Your task to perform on an android device: turn off javascript in the chrome app Image 0: 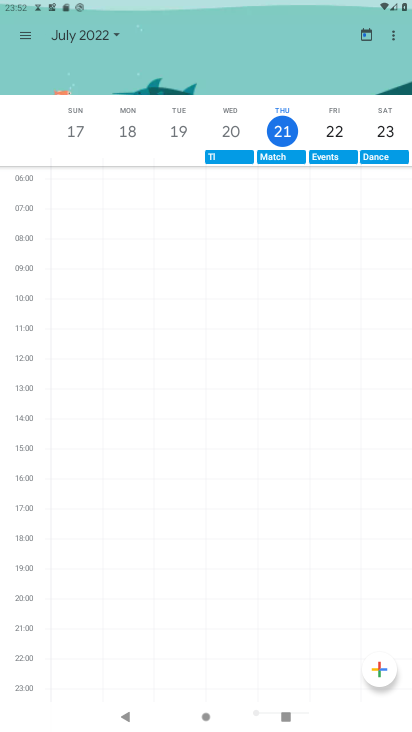
Step 0: press home button
Your task to perform on an android device: turn off javascript in the chrome app Image 1: 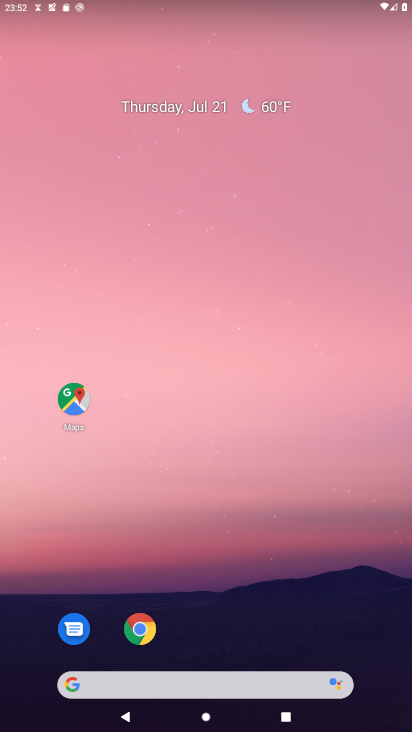
Step 1: drag from (172, 642) to (186, 182)
Your task to perform on an android device: turn off javascript in the chrome app Image 2: 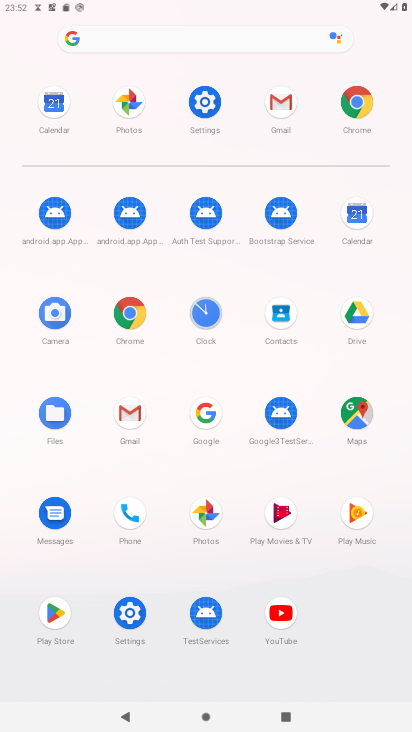
Step 2: click (131, 316)
Your task to perform on an android device: turn off javascript in the chrome app Image 3: 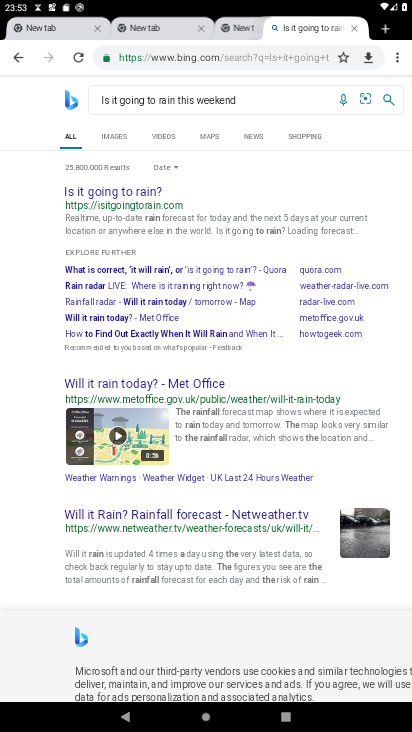
Step 3: click (394, 56)
Your task to perform on an android device: turn off javascript in the chrome app Image 4: 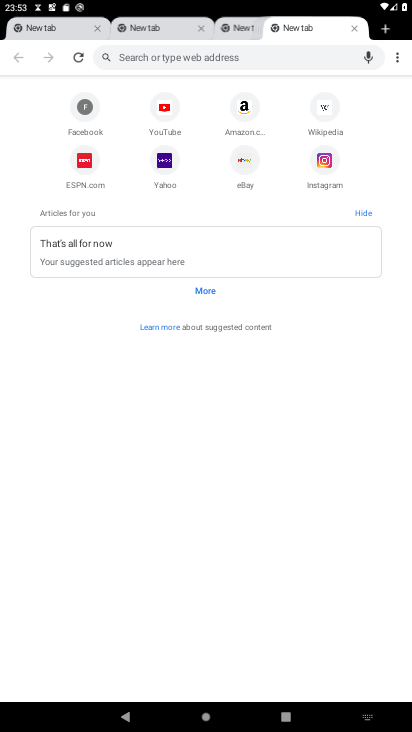
Step 4: click (405, 49)
Your task to perform on an android device: turn off javascript in the chrome app Image 5: 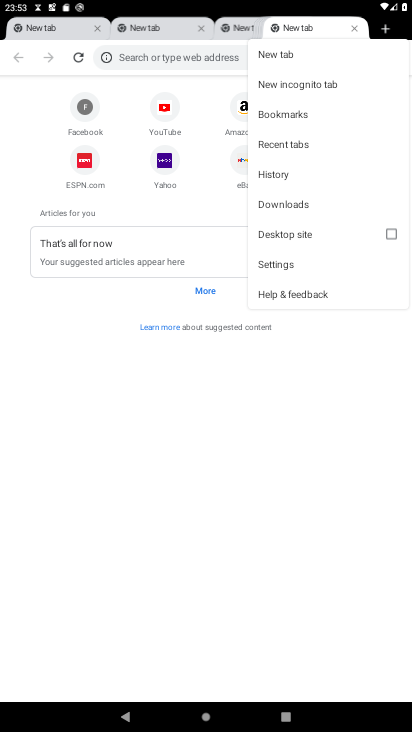
Step 5: click (293, 258)
Your task to perform on an android device: turn off javascript in the chrome app Image 6: 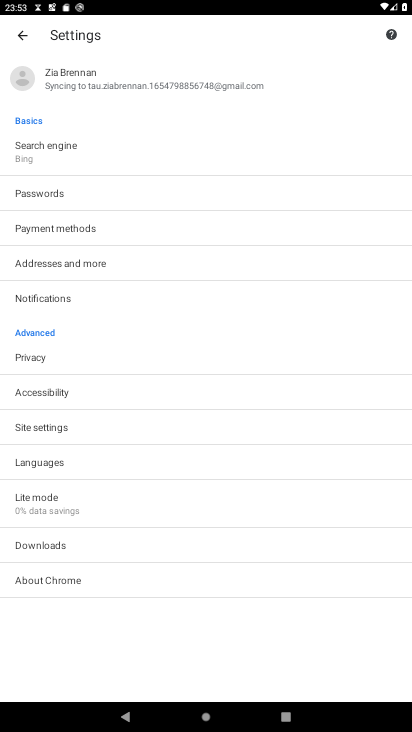
Step 6: click (83, 427)
Your task to perform on an android device: turn off javascript in the chrome app Image 7: 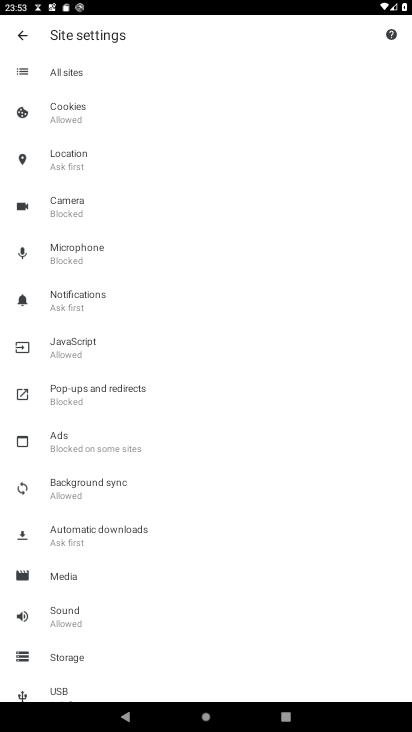
Step 7: click (93, 350)
Your task to perform on an android device: turn off javascript in the chrome app Image 8: 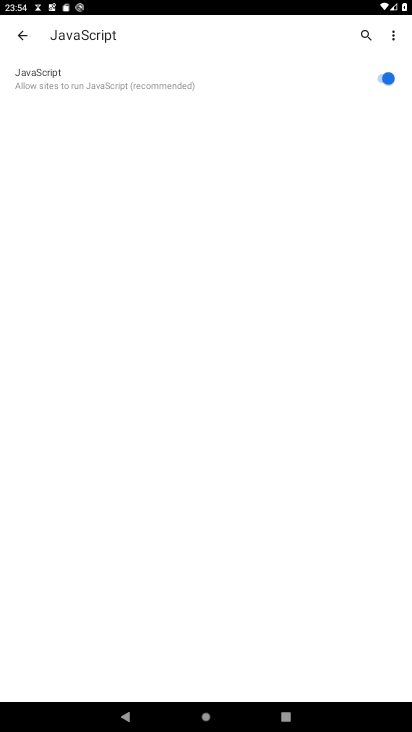
Step 8: click (383, 83)
Your task to perform on an android device: turn off javascript in the chrome app Image 9: 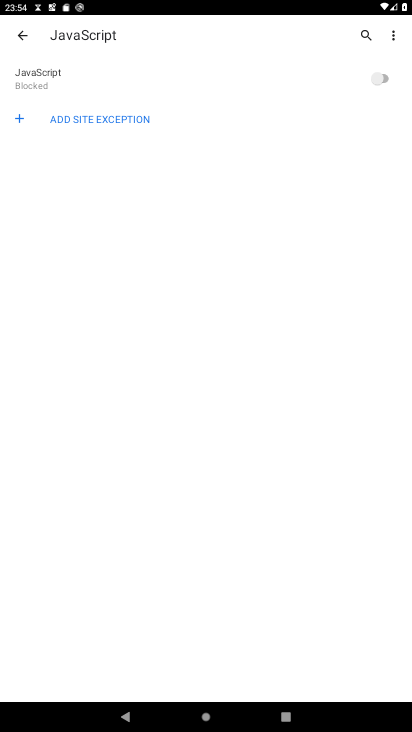
Step 9: task complete